Your task to perform on an android device: see creations saved in the google photos Image 0: 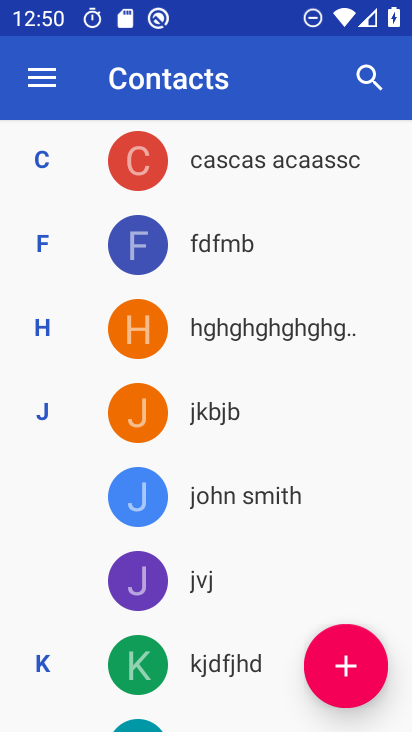
Step 0: press back button
Your task to perform on an android device: see creations saved in the google photos Image 1: 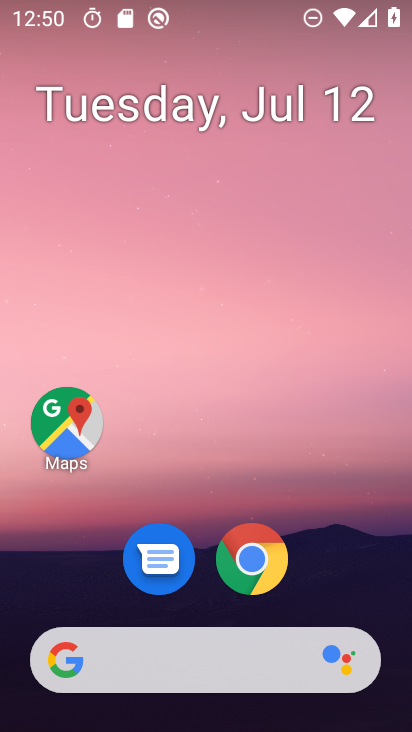
Step 1: drag from (179, 520) to (52, 157)
Your task to perform on an android device: see creations saved in the google photos Image 2: 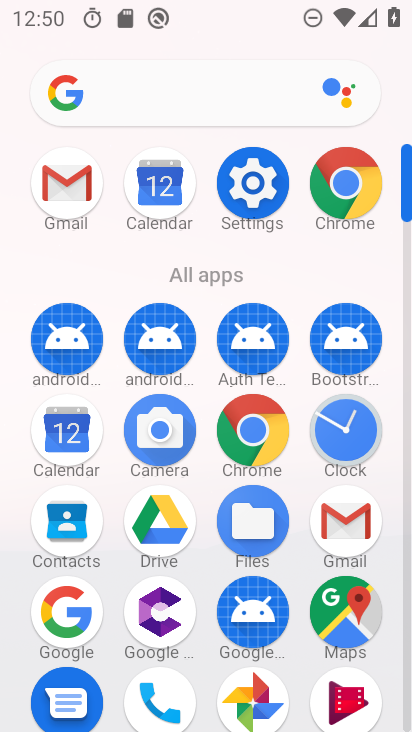
Step 2: click (257, 690)
Your task to perform on an android device: see creations saved in the google photos Image 3: 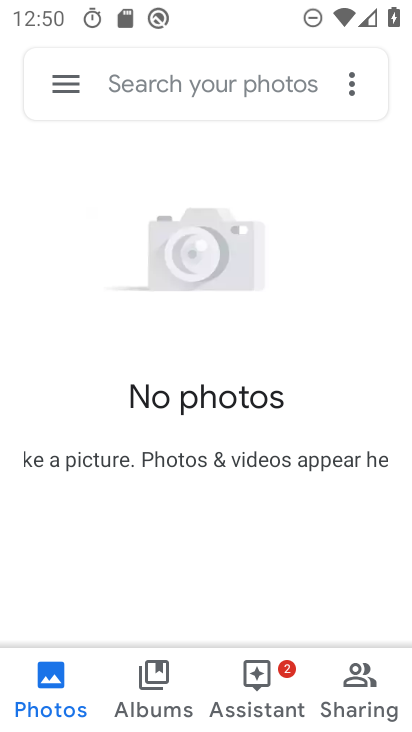
Step 3: click (51, 89)
Your task to perform on an android device: see creations saved in the google photos Image 4: 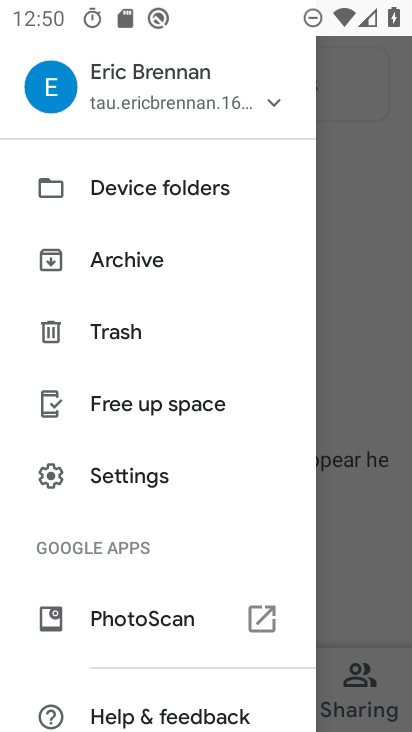
Step 4: click (165, 247)
Your task to perform on an android device: see creations saved in the google photos Image 5: 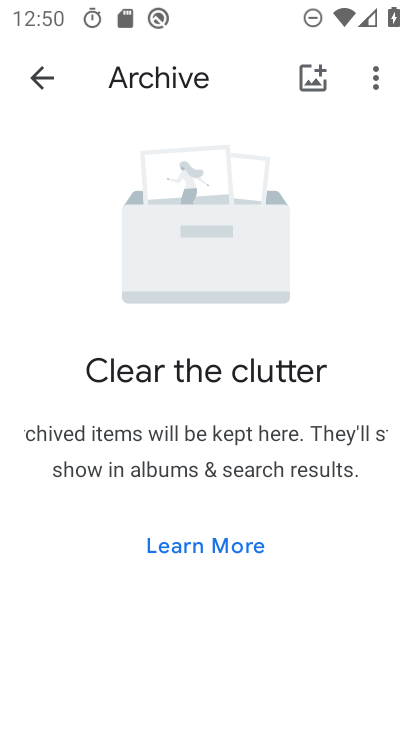
Step 5: task complete